Your task to perform on an android device: Open privacy settings Image 0: 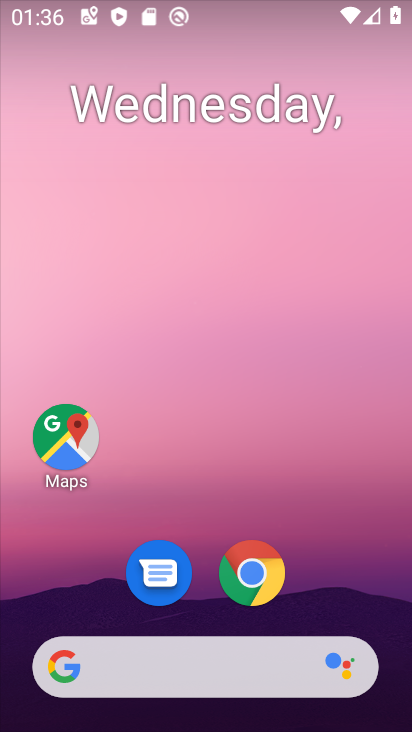
Step 0: drag from (332, 577) to (280, 53)
Your task to perform on an android device: Open privacy settings Image 1: 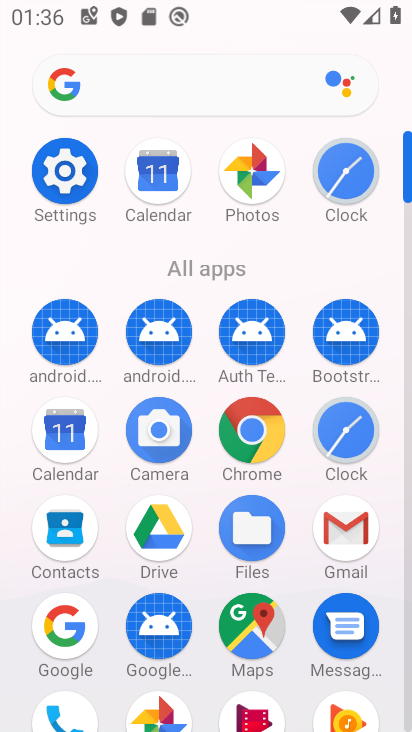
Step 1: click (66, 171)
Your task to perform on an android device: Open privacy settings Image 2: 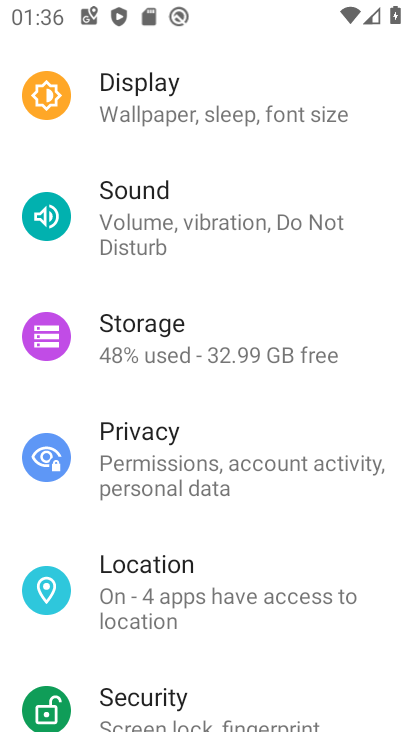
Step 2: click (143, 428)
Your task to perform on an android device: Open privacy settings Image 3: 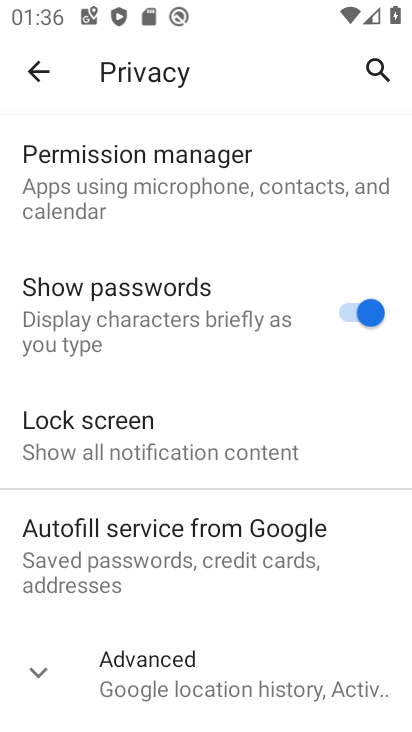
Step 3: task complete